Your task to perform on an android device: turn off sleep mode Image 0: 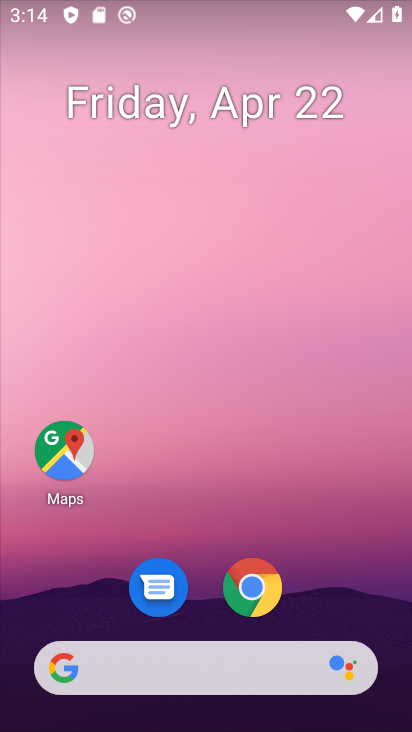
Step 0: drag from (326, 14) to (308, 433)
Your task to perform on an android device: turn off sleep mode Image 1: 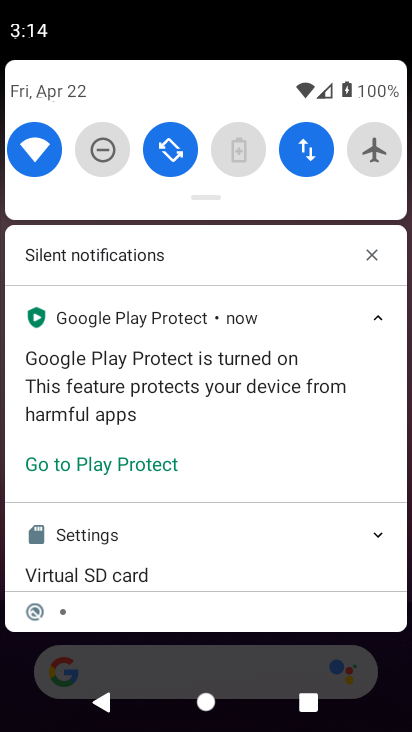
Step 1: drag from (210, 192) to (222, 530)
Your task to perform on an android device: turn off sleep mode Image 2: 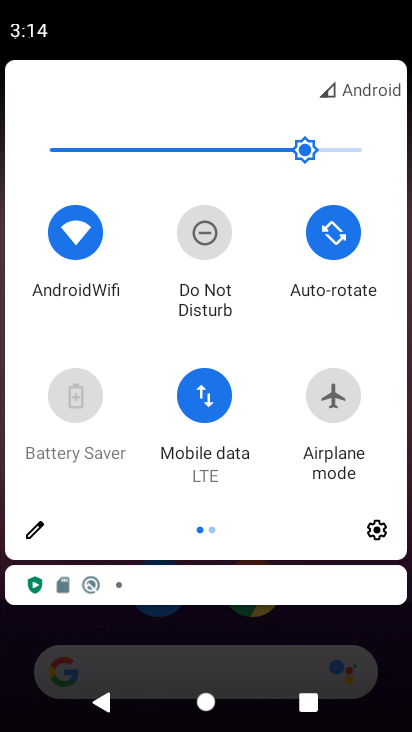
Step 2: click (37, 528)
Your task to perform on an android device: turn off sleep mode Image 3: 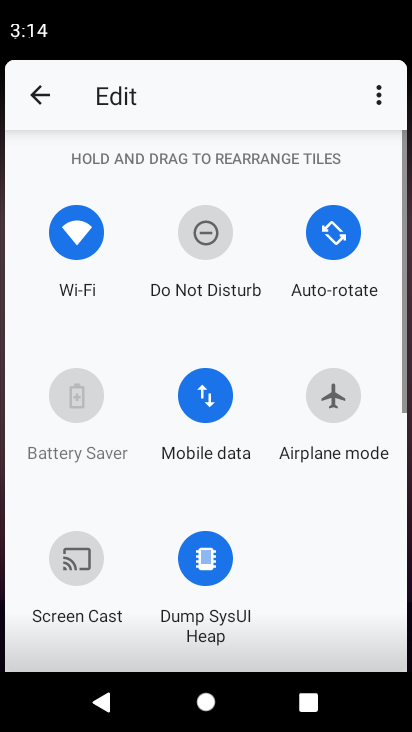
Step 3: drag from (284, 481) to (246, 30)
Your task to perform on an android device: turn off sleep mode Image 4: 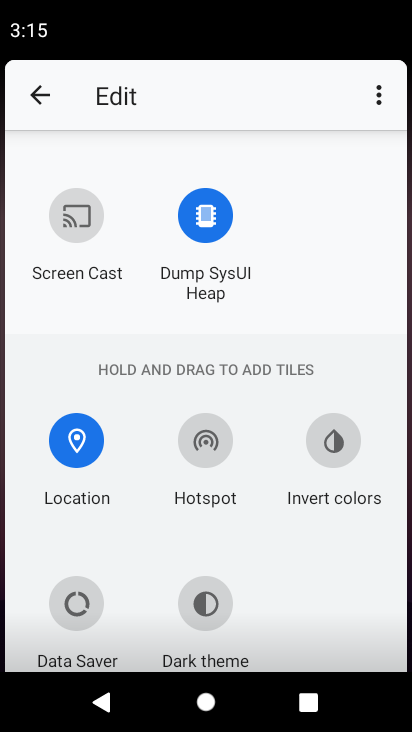
Step 4: drag from (278, 331) to (284, 61)
Your task to perform on an android device: turn off sleep mode Image 5: 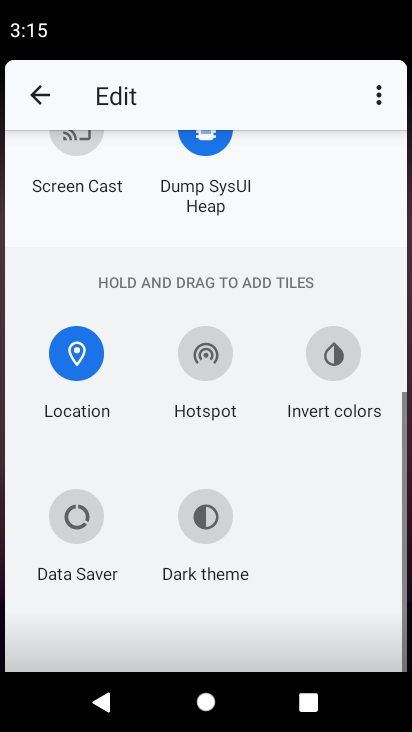
Step 5: click (47, 95)
Your task to perform on an android device: turn off sleep mode Image 6: 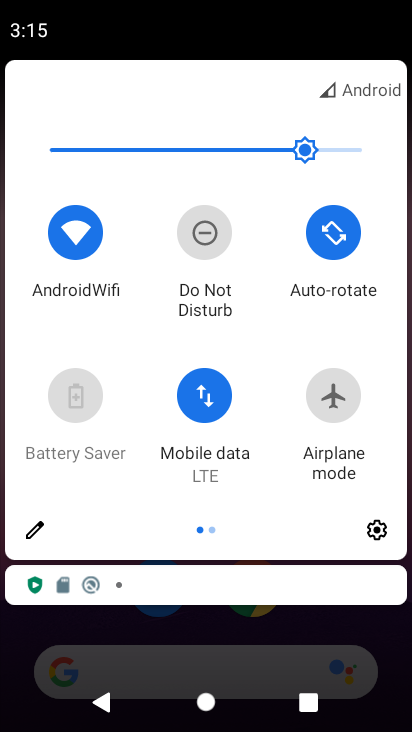
Step 6: click (380, 527)
Your task to perform on an android device: turn off sleep mode Image 7: 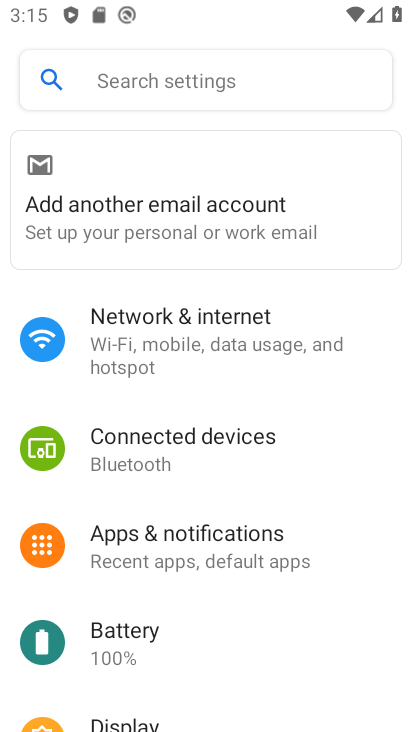
Step 7: drag from (115, 639) to (110, 197)
Your task to perform on an android device: turn off sleep mode Image 8: 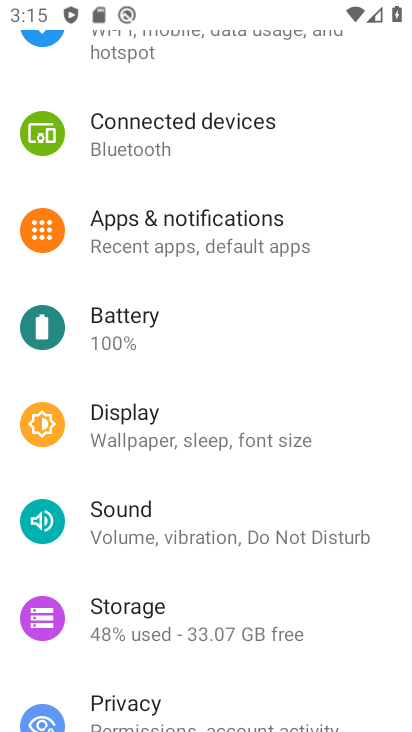
Step 8: click (108, 417)
Your task to perform on an android device: turn off sleep mode Image 9: 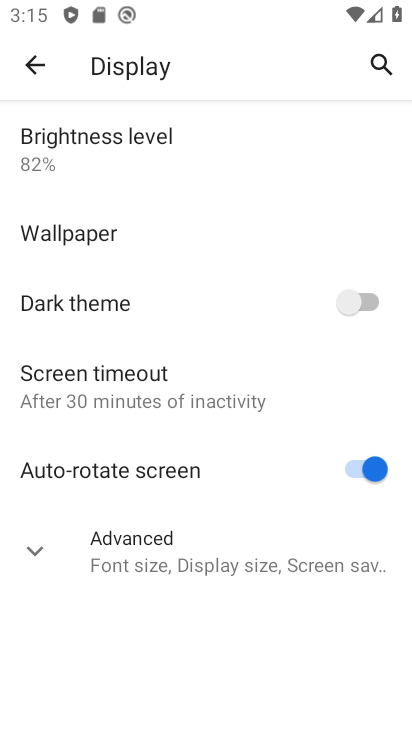
Step 9: click (134, 553)
Your task to perform on an android device: turn off sleep mode Image 10: 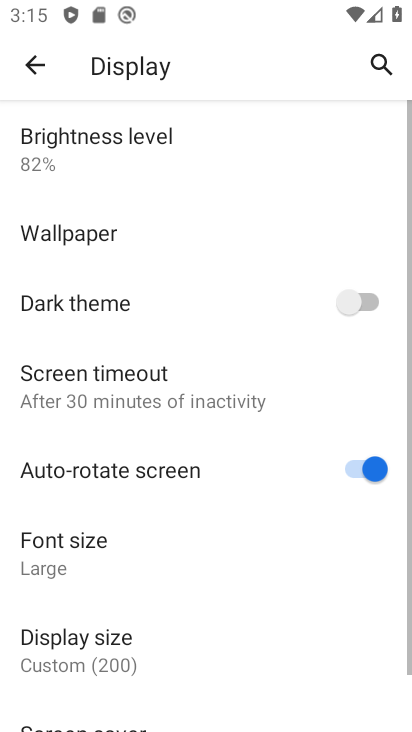
Step 10: task complete